Your task to perform on an android device: change your default location settings in chrome Image 0: 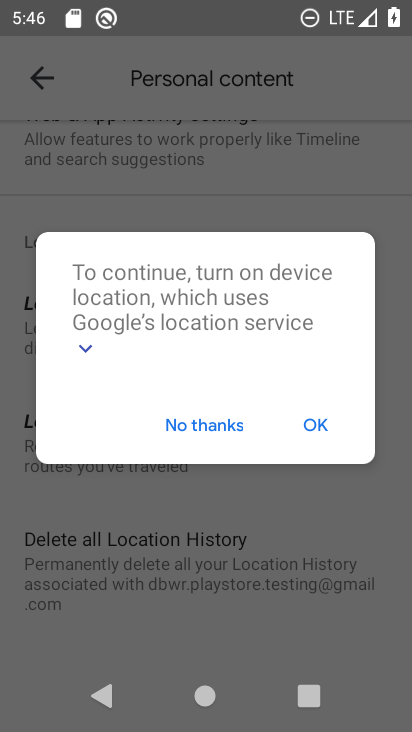
Step 0: press home button
Your task to perform on an android device: change your default location settings in chrome Image 1: 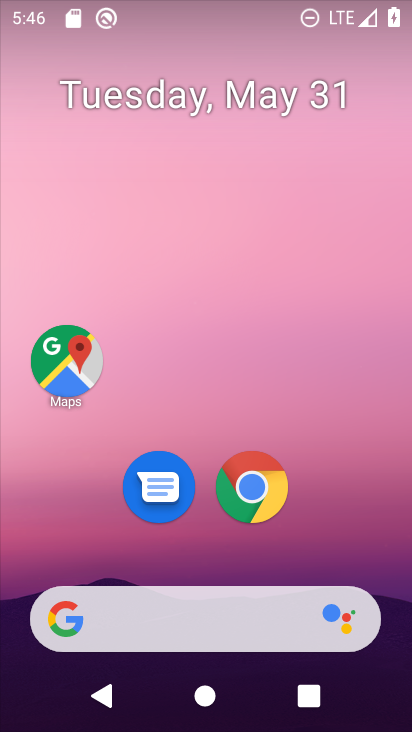
Step 1: click (261, 484)
Your task to perform on an android device: change your default location settings in chrome Image 2: 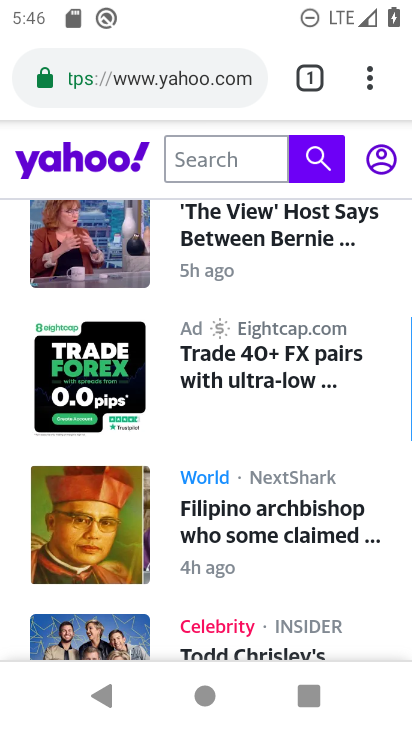
Step 2: click (369, 76)
Your task to perform on an android device: change your default location settings in chrome Image 3: 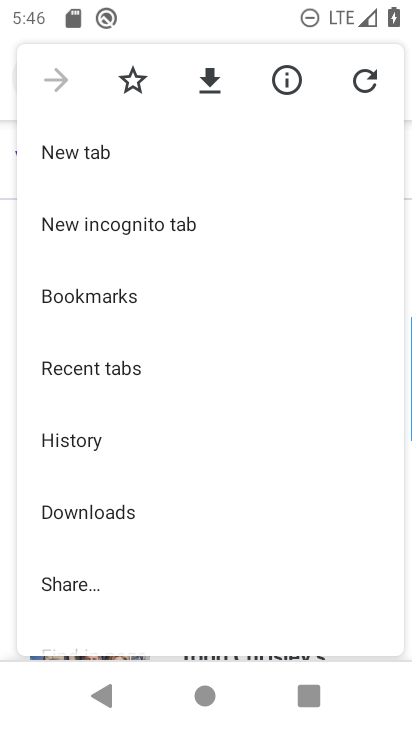
Step 3: drag from (179, 525) to (174, 140)
Your task to perform on an android device: change your default location settings in chrome Image 4: 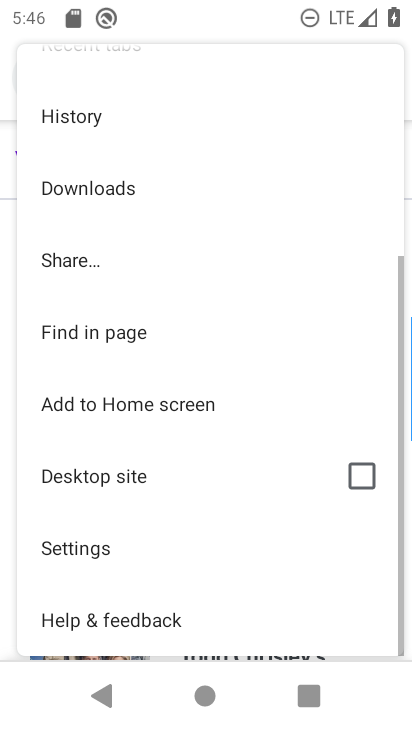
Step 4: click (106, 549)
Your task to perform on an android device: change your default location settings in chrome Image 5: 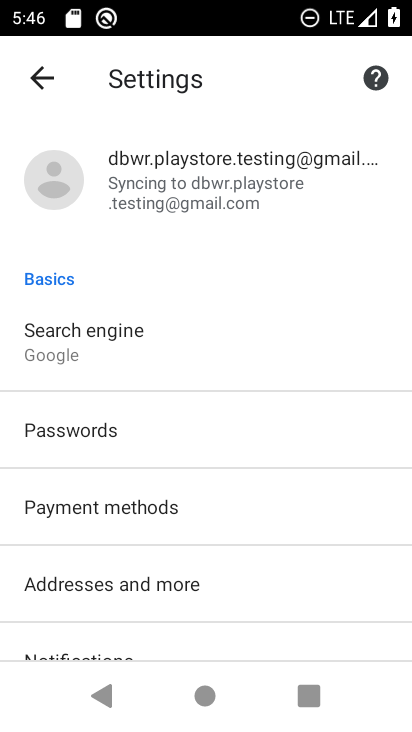
Step 5: drag from (291, 583) to (265, 219)
Your task to perform on an android device: change your default location settings in chrome Image 6: 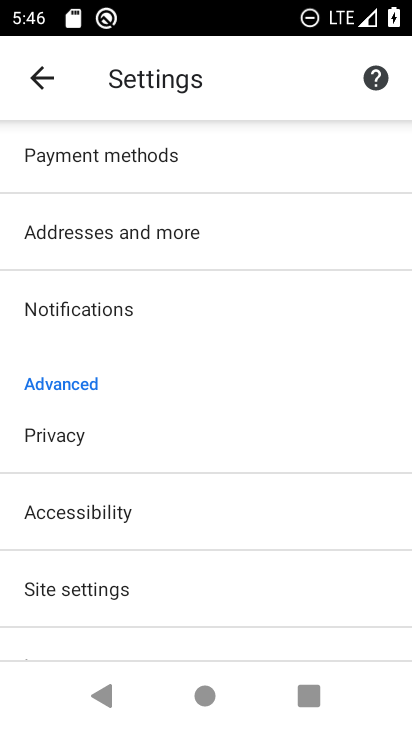
Step 6: drag from (293, 530) to (287, 200)
Your task to perform on an android device: change your default location settings in chrome Image 7: 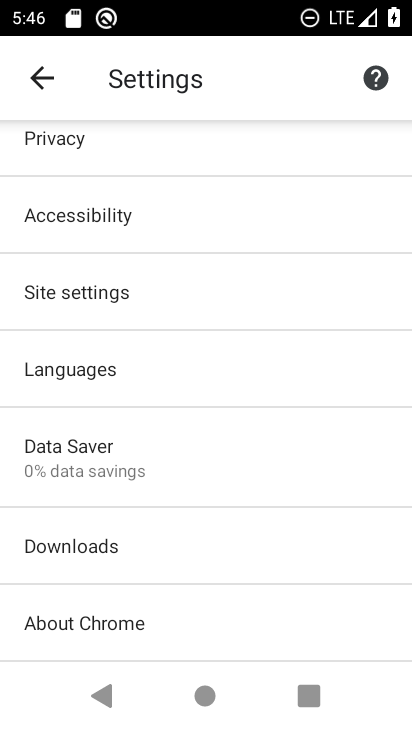
Step 7: click (73, 291)
Your task to perform on an android device: change your default location settings in chrome Image 8: 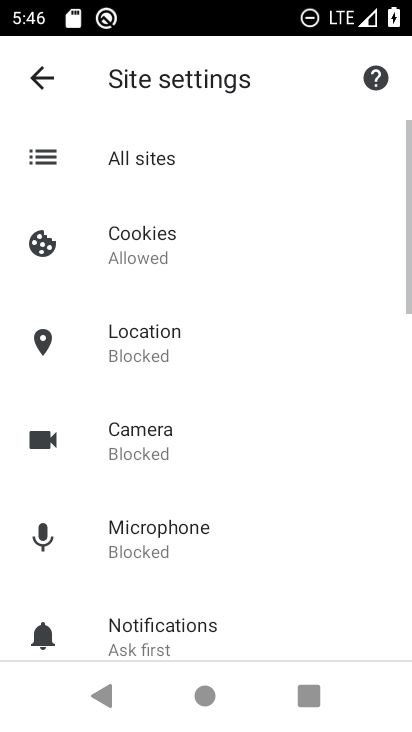
Step 8: click (120, 347)
Your task to perform on an android device: change your default location settings in chrome Image 9: 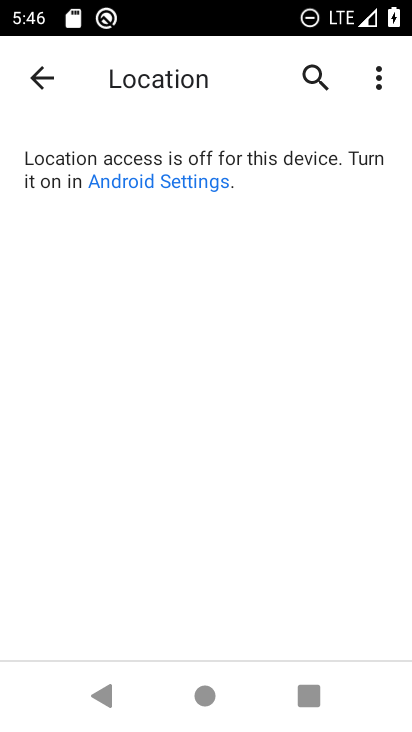
Step 9: drag from (235, 226) to (221, 479)
Your task to perform on an android device: change your default location settings in chrome Image 10: 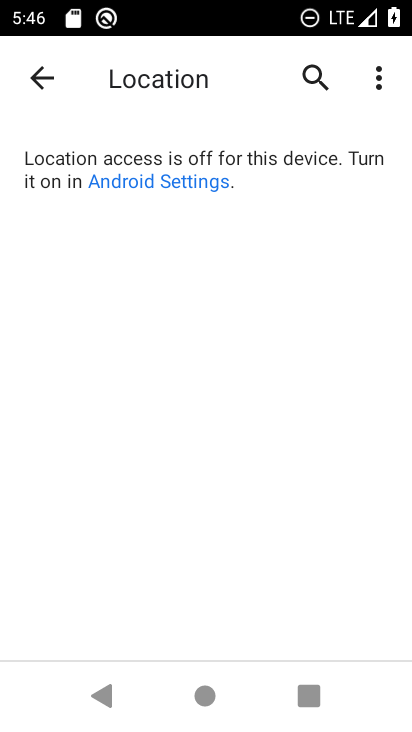
Step 10: click (125, 174)
Your task to perform on an android device: change your default location settings in chrome Image 11: 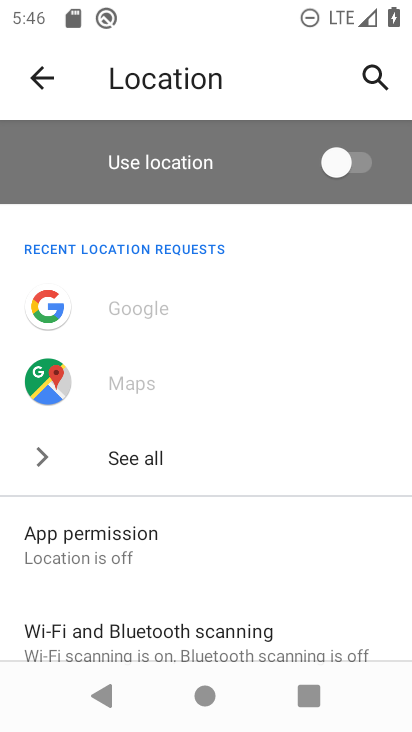
Step 11: click (340, 155)
Your task to perform on an android device: change your default location settings in chrome Image 12: 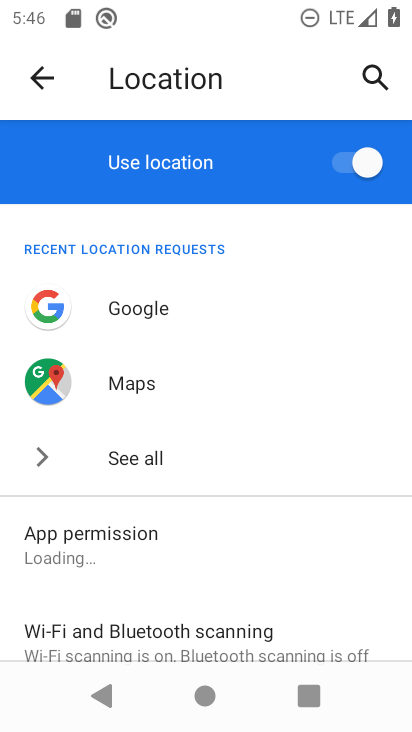
Step 12: task complete